Your task to perform on an android device: Show me recent news Image 0: 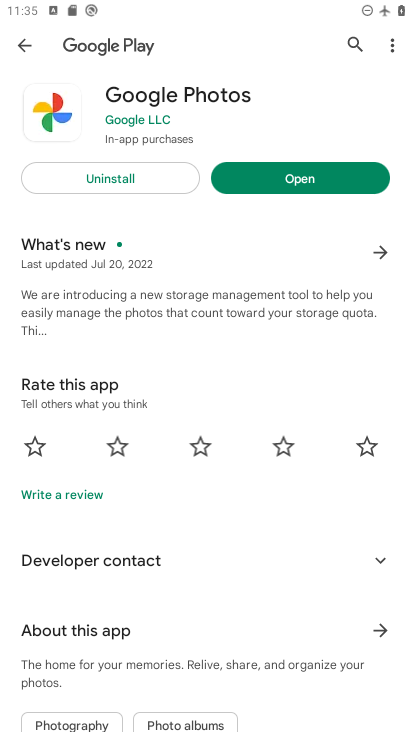
Step 0: press home button
Your task to perform on an android device: Show me recent news Image 1: 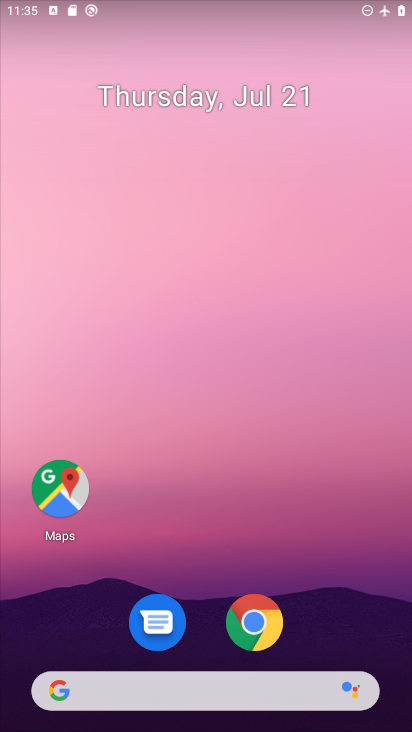
Step 1: click (201, 688)
Your task to perform on an android device: Show me recent news Image 2: 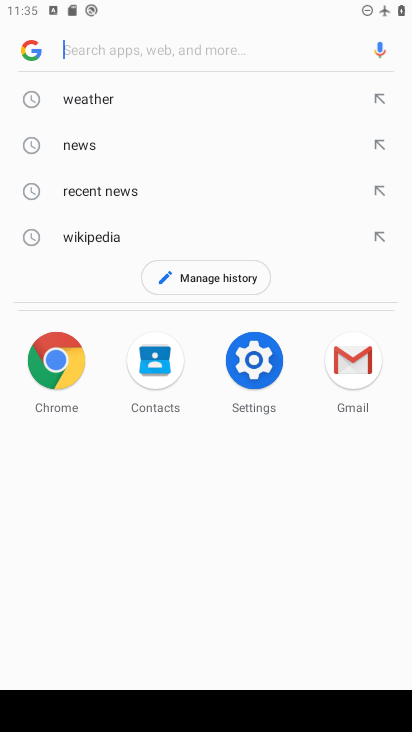
Step 2: click (111, 192)
Your task to perform on an android device: Show me recent news Image 3: 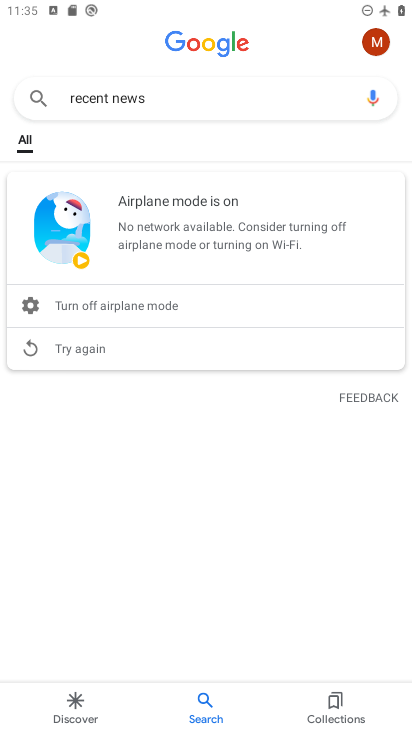
Step 3: task complete